Your task to perform on an android device: Open ESPN.com Image 0: 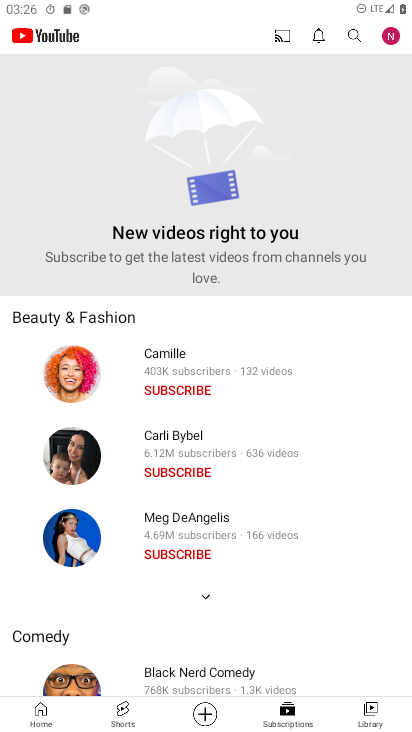
Step 0: press home button
Your task to perform on an android device: Open ESPN.com Image 1: 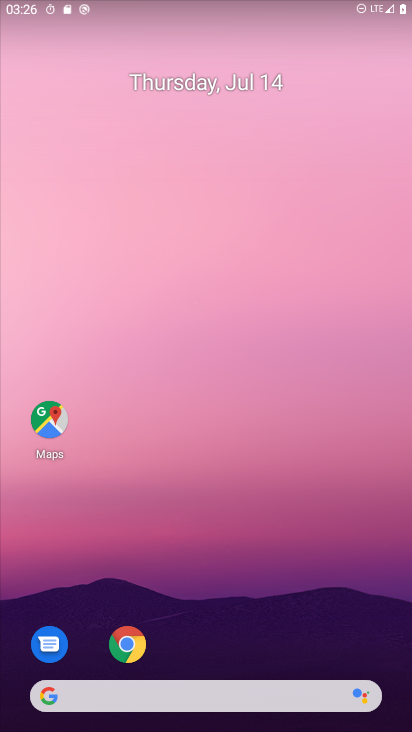
Step 1: click (128, 639)
Your task to perform on an android device: Open ESPN.com Image 2: 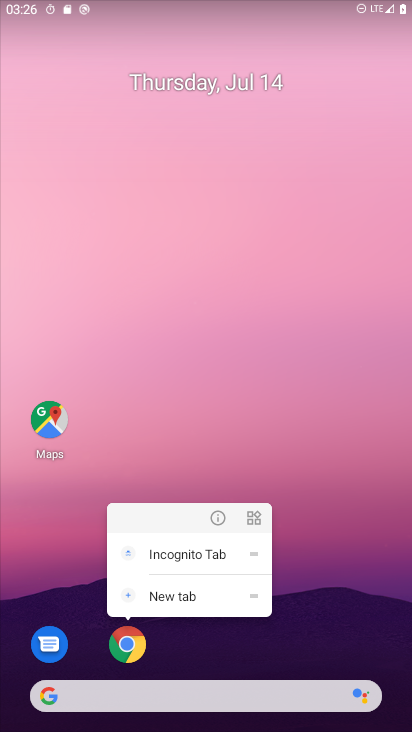
Step 2: click (125, 644)
Your task to perform on an android device: Open ESPN.com Image 3: 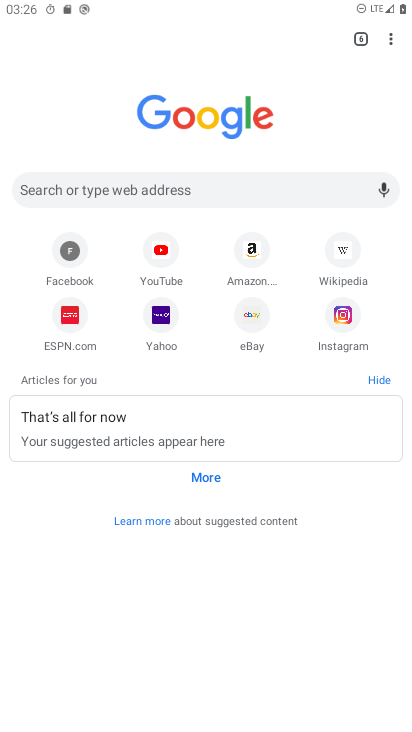
Step 3: click (73, 324)
Your task to perform on an android device: Open ESPN.com Image 4: 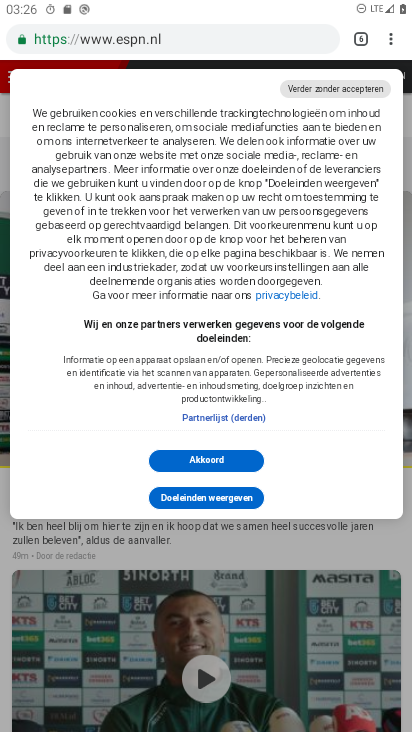
Step 4: task complete